Your task to perform on an android device: manage bookmarks in the chrome app Image 0: 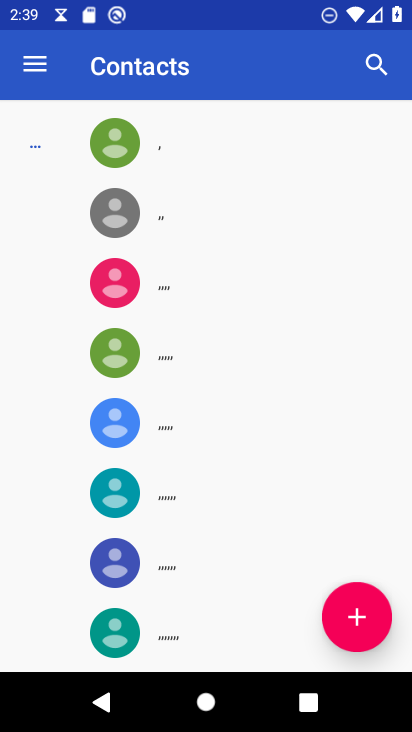
Step 0: press home button
Your task to perform on an android device: manage bookmarks in the chrome app Image 1: 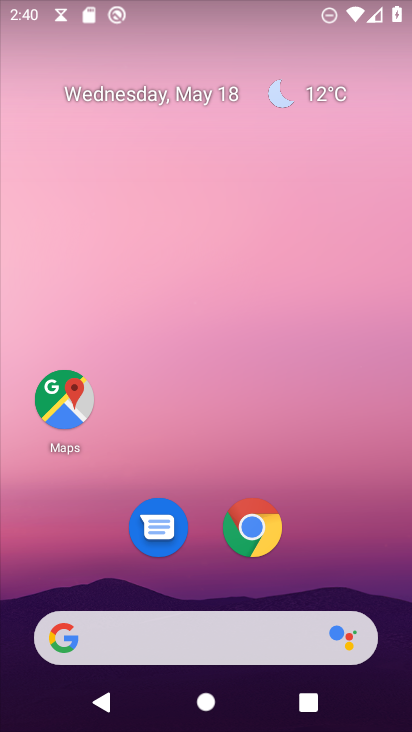
Step 1: click (262, 534)
Your task to perform on an android device: manage bookmarks in the chrome app Image 2: 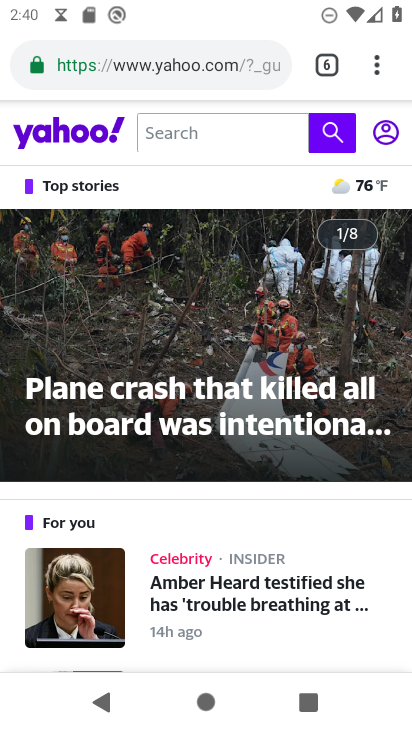
Step 2: click (381, 65)
Your task to perform on an android device: manage bookmarks in the chrome app Image 3: 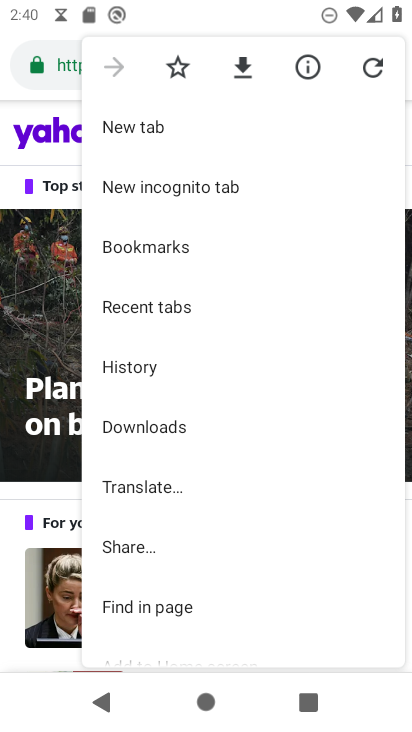
Step 3: click (174, 245)
Your task to perform on an android device: manage bookmarks in the chrome app Image 4: 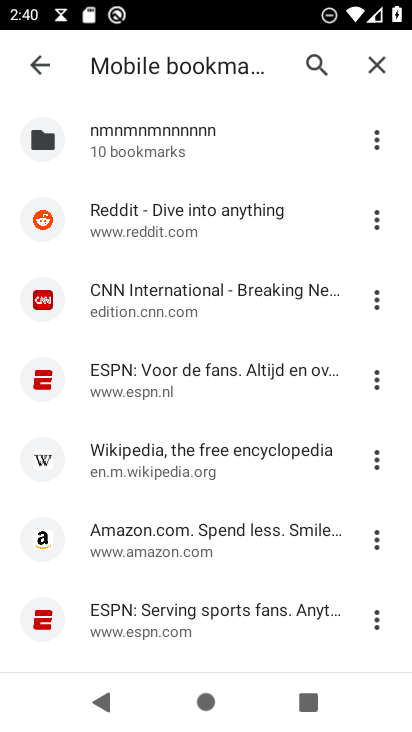
Step 4: click (377, 217)
Your task to perform on an android device: manage bookmarks in the chrome app Image 5: 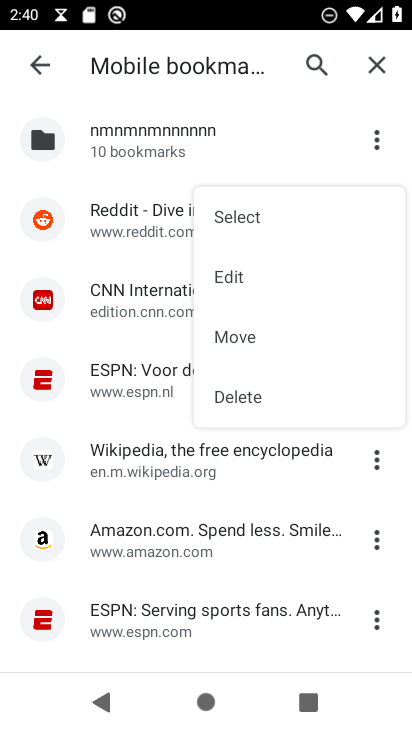
Step 5: click (293, 398)
Your task to perform on an android device: manage bookmarks in the chrome app Image 6: 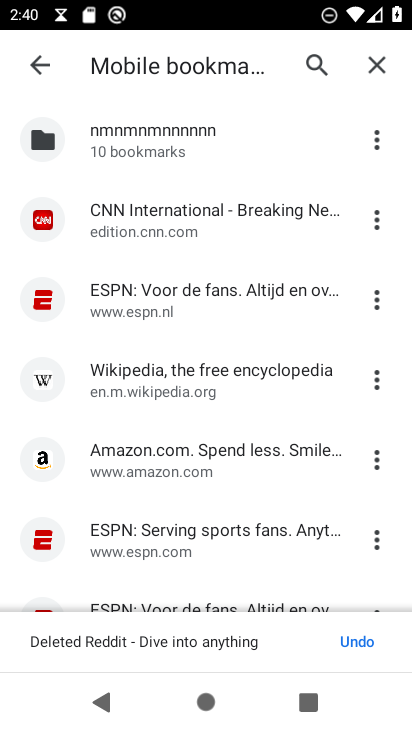
Step 6: task complete